Your task to perform on an android device: open wifi settings Image 0: 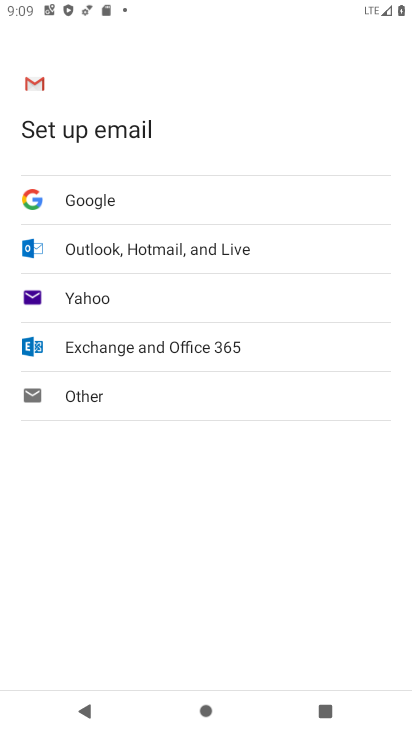
Step 0: press home button
Your task to perform on an android device: open wifi settings Image 1: 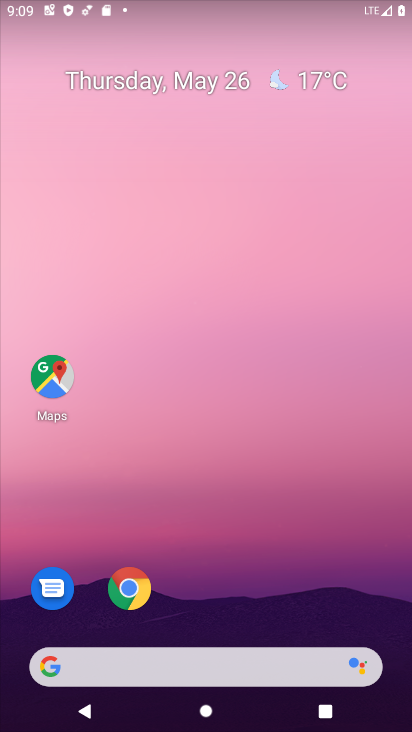
Step 1: drag from (345, 626) to (320, 142)
Your task to perform on an android device: open wifi settings Image 2: 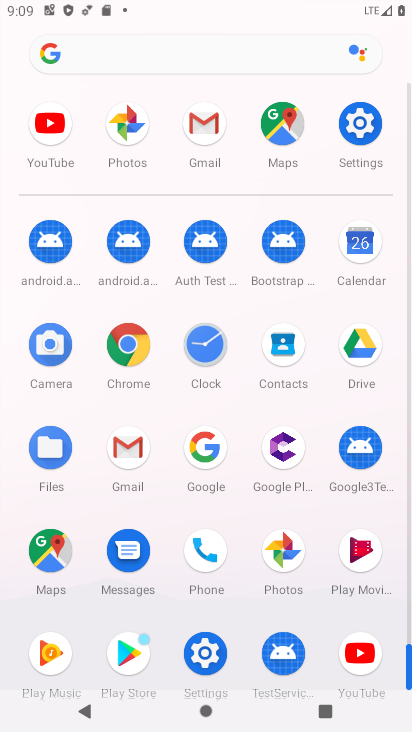
Step 2: click (206, 650)
Your task to perform on an android device: open wifi settings Image 3: 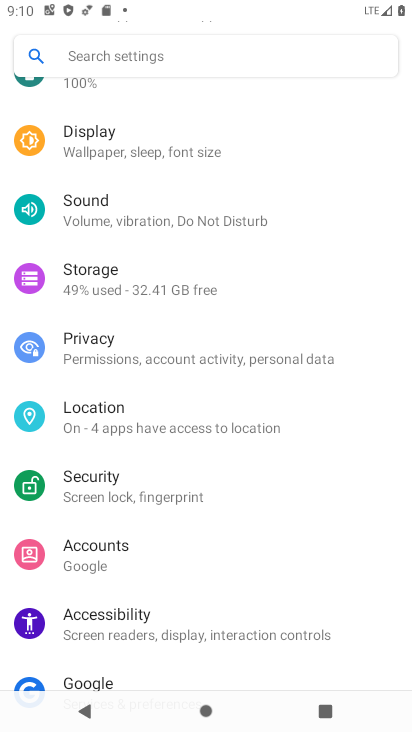
Step 3: drag from (292, 145) to (284, 300)
Your task to perform on an android device: open wifi settings Image 4: 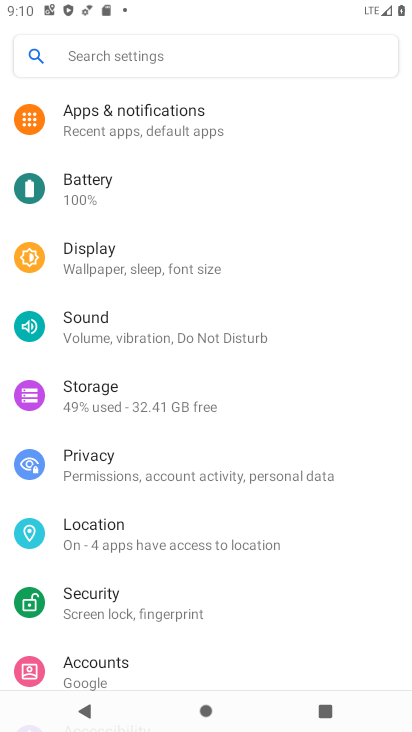
Step 4: drag from (313, 165) to (250, 478)
Your task to perform on an android device: open wifi settings Image 5: 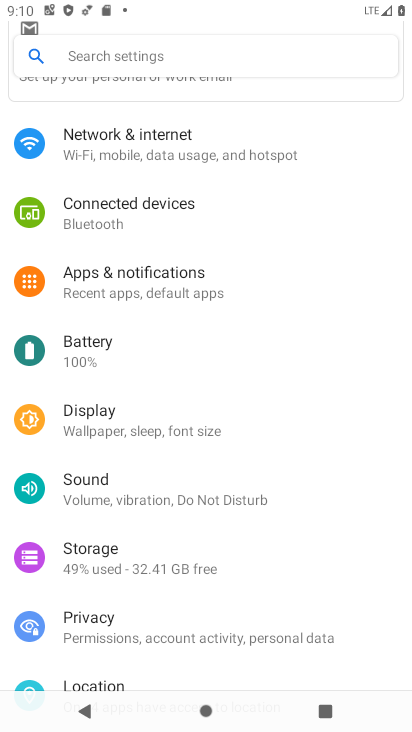
Step 5: click (132, 143)
Your task to perform on an android device: open wifi settings Image 6: 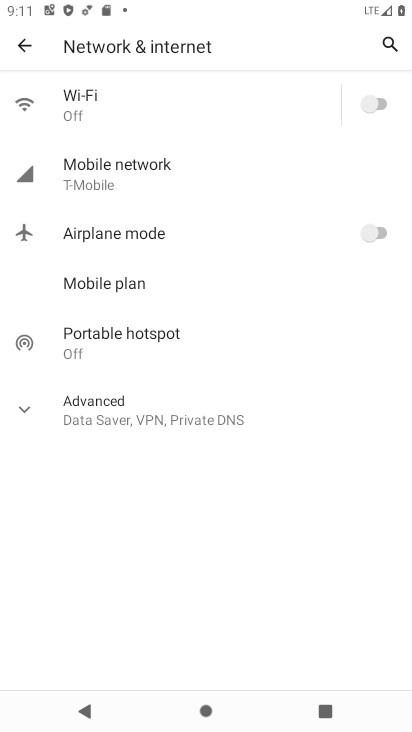
Step 6: click (59, 88)
Your task to perform on an android device: open wifi settings Image 7: 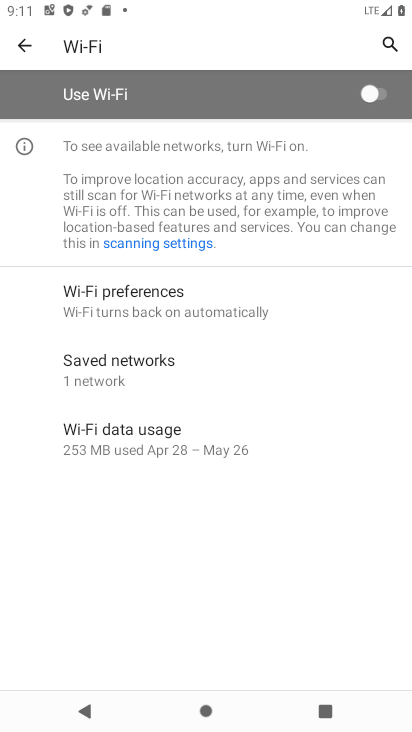
Step 7: click (59, 88)
Your task to perform on an android device: open wifi settings Image 8: 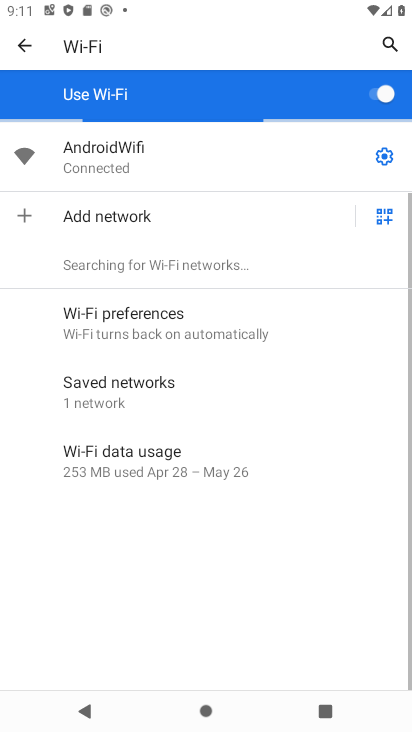
Step 8: click (382, 154)
Your task to perform on an android device: open wifi settings Image 9: 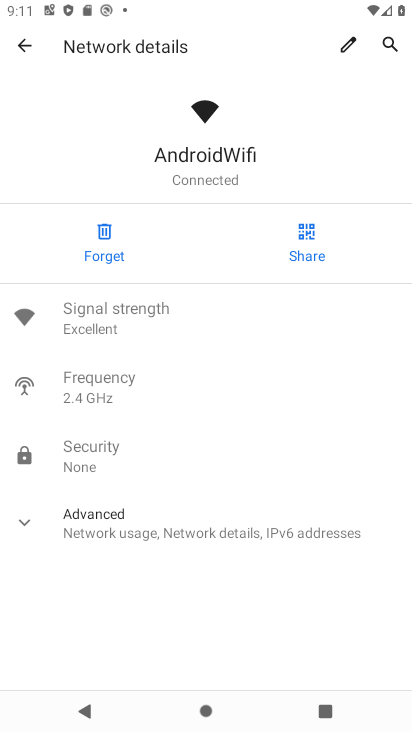
Step 9: click (17, 530)
Your task to perform on an android device: open wifi settings Image 10: 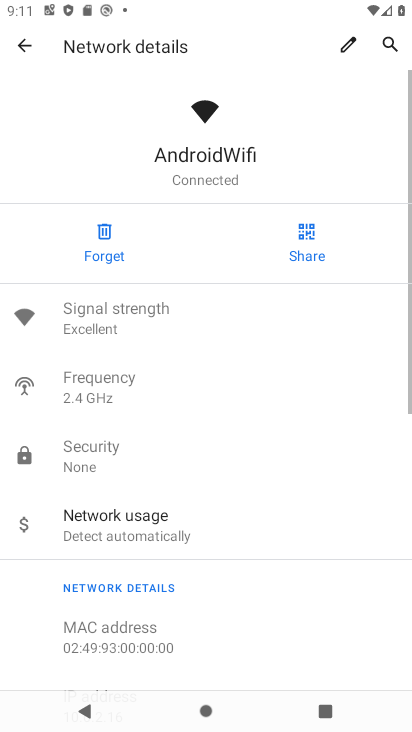
Step 10: task complete